Your task to perform on an android device: delete the emails in spam in the gmail app Image 0: 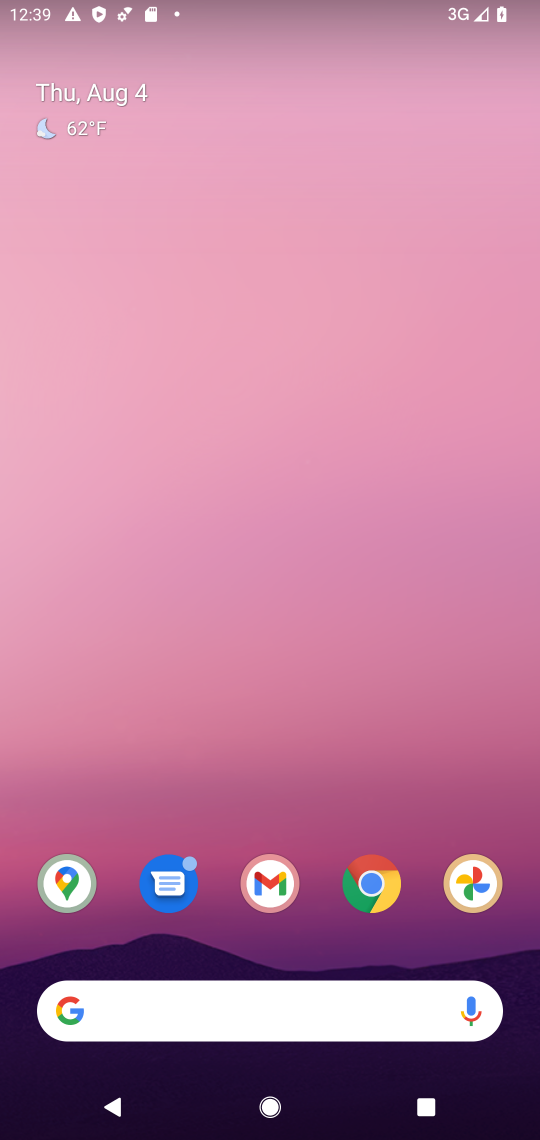
Step 0: drag from (260, 870) to (351, 209)
Your task to perform on an android device: delete the emails in spam in the gmail app Image 1: 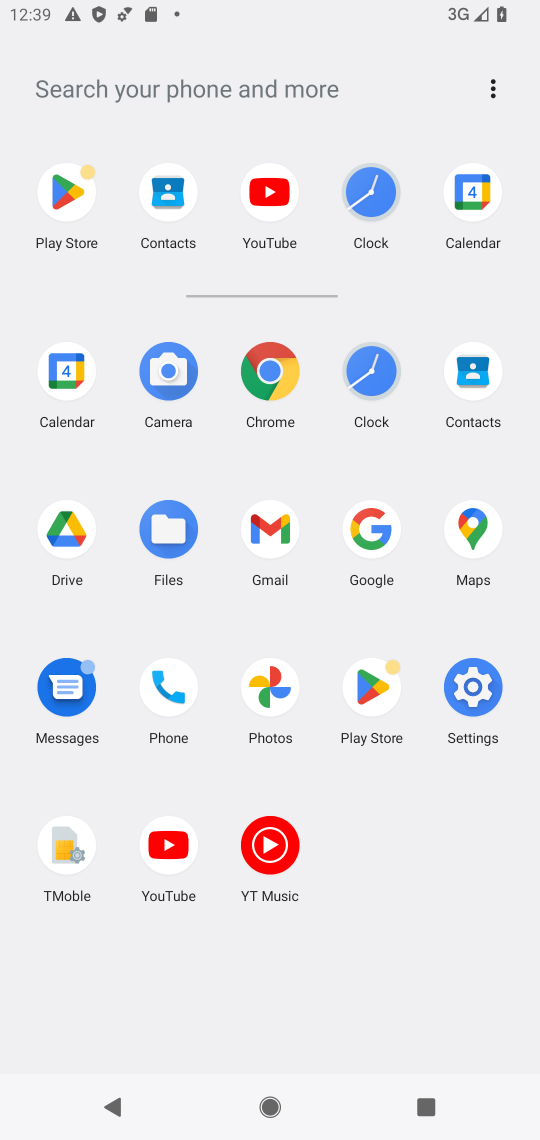
Step 1: click (276, 542)
Your task to perform on an android device: delete the emails in spam in the gmail app Image 2: 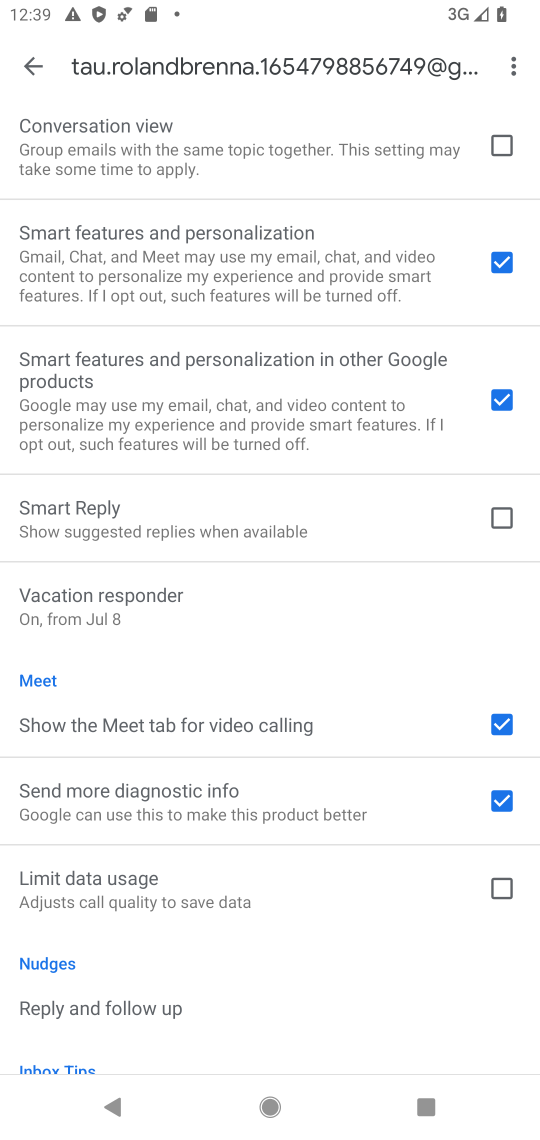
Step 2: drag from (297, 517) to (518, 420)
Your task to perform on an android device: delete the emails in spam in the gmail app Image 3: 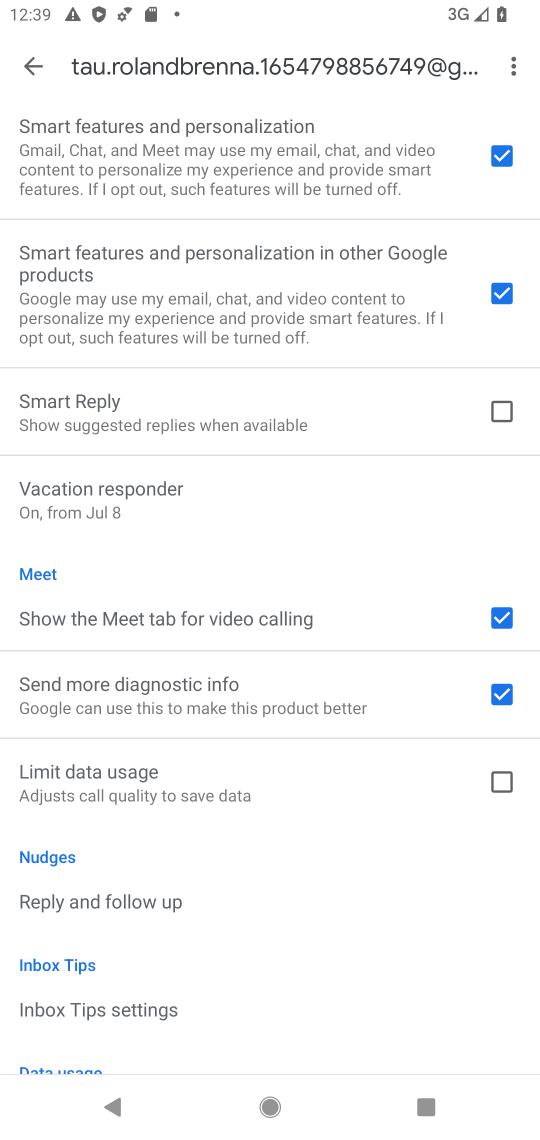
Step 3: click (25, 65)
Your task to perform on an android device: delete the emails in spam in the gmail app Image 4: 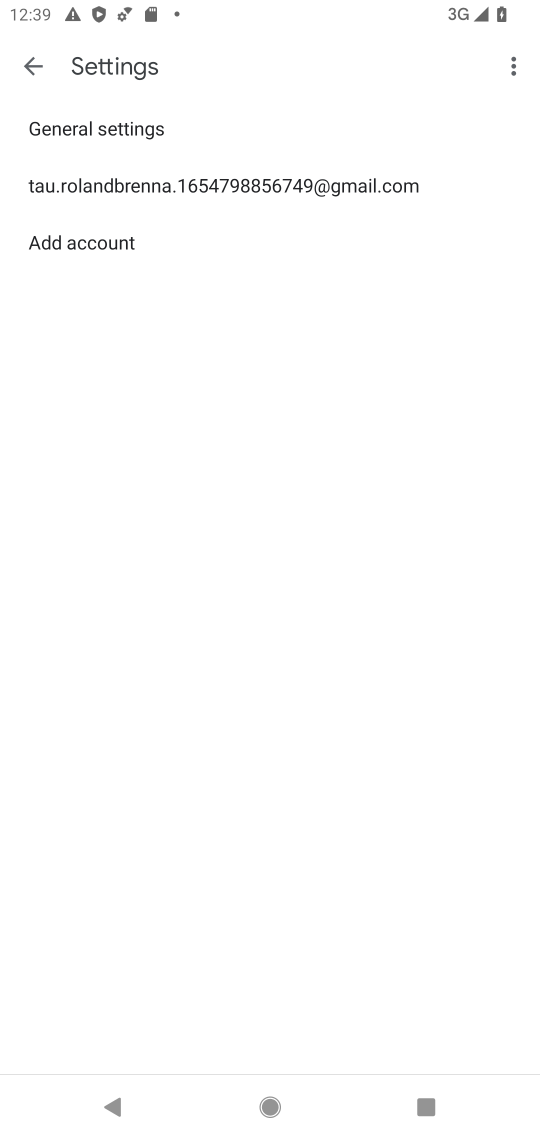
Step 4: click (27, 57)
Your task to perform on an android device: delete the emails in spam in the gmail app Image 5: 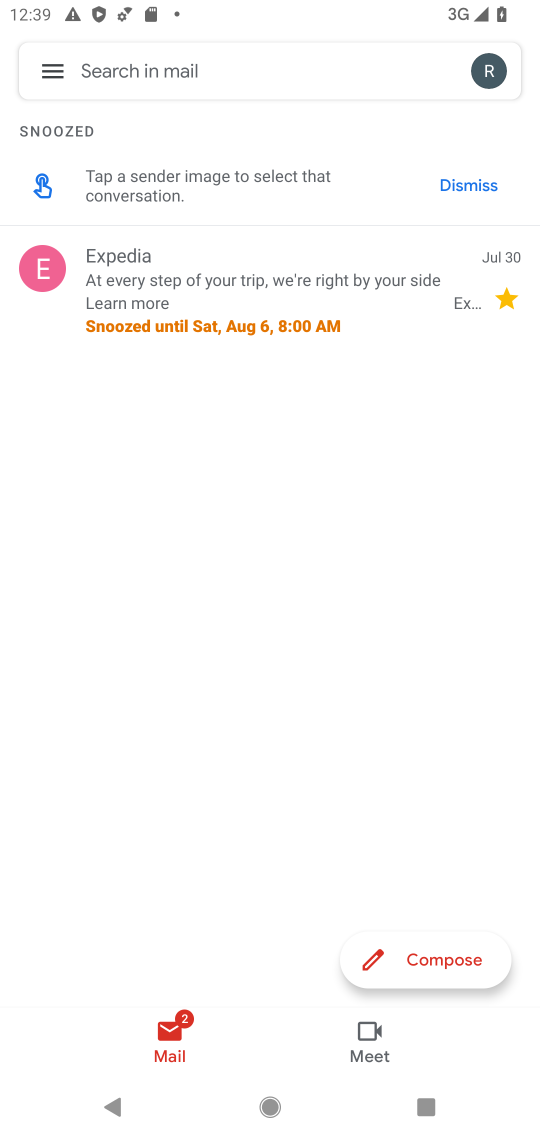
Step 5: click (44, 57)
Your task to perform on an android device: delete the emails in spam in the gmail app Image 6: 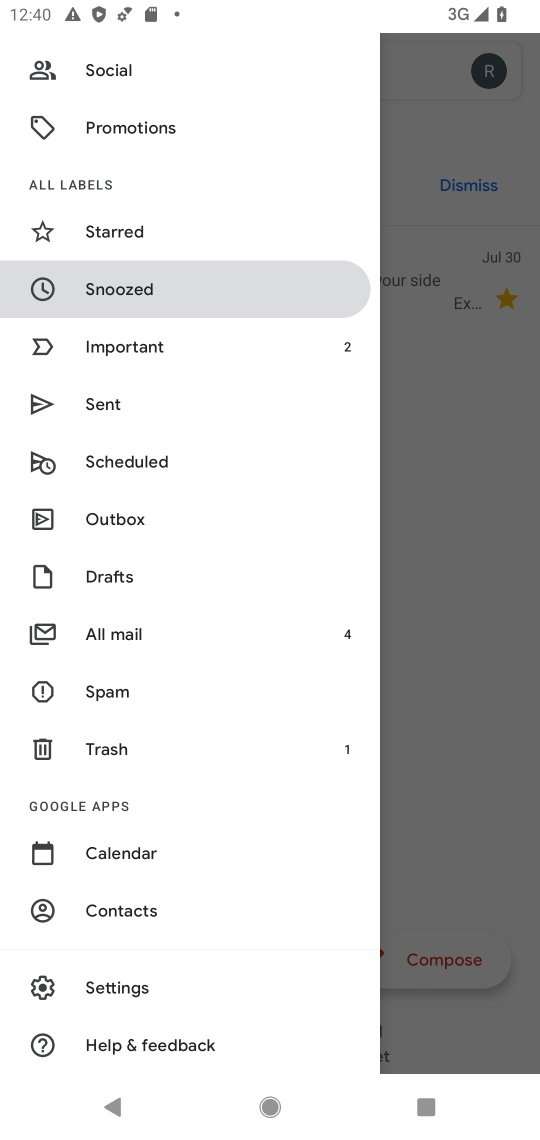
Step 6: drag from (121, 418) to (256, 1128)
Your task to perform on an android device: delete the emails in spam in the gmail app Image 7: 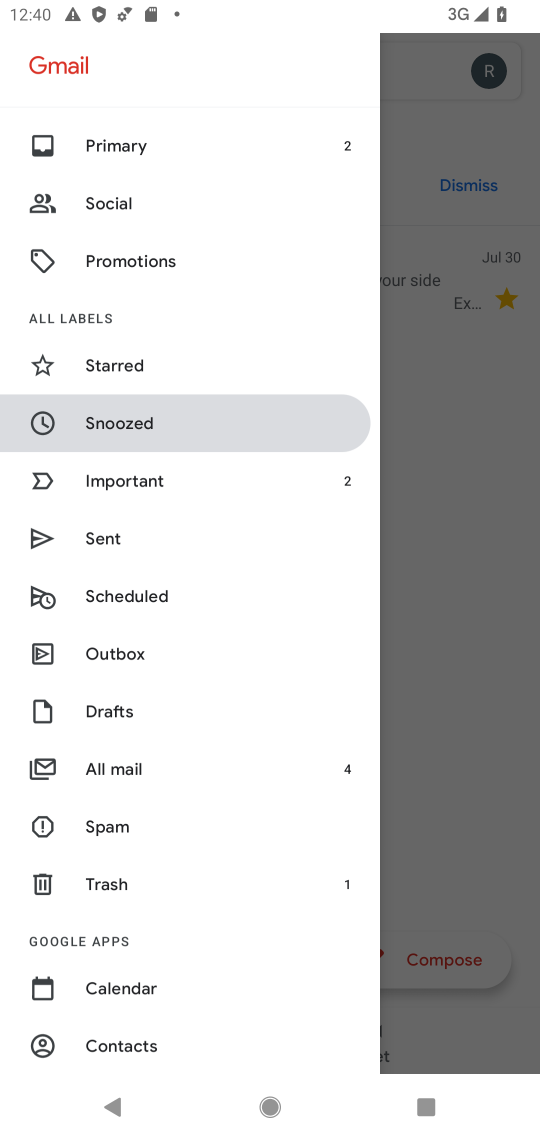
Step 7: click (113, 833)
Your task to perform on an android device: delete the emails in spam in the gmail app Image 8: 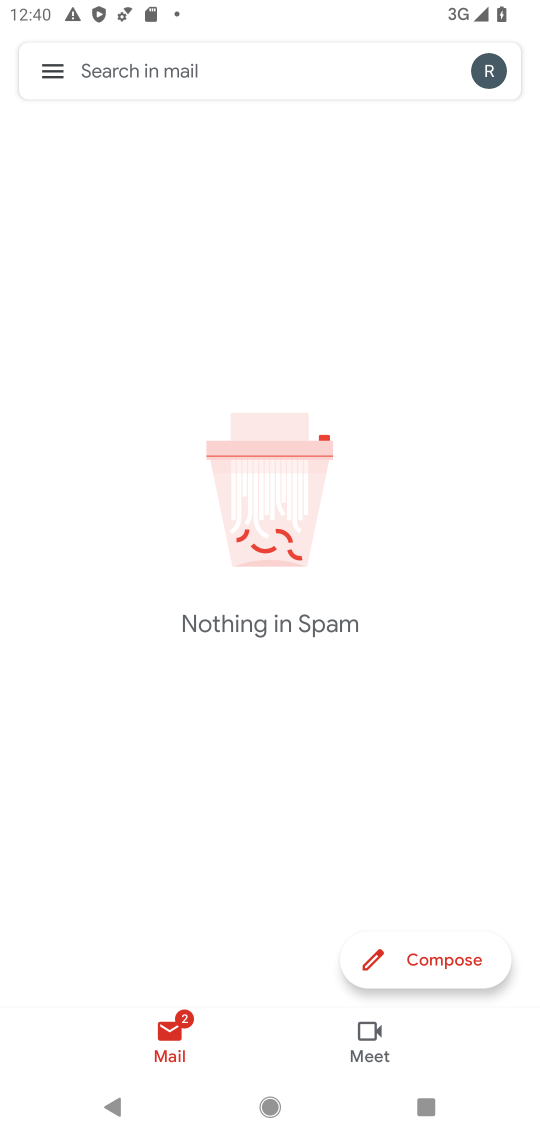
Step 8: drag from (198, 665) to (202, 142)
Your task to perform on an android device: delete the emails in spam in the gmail app Image 9: 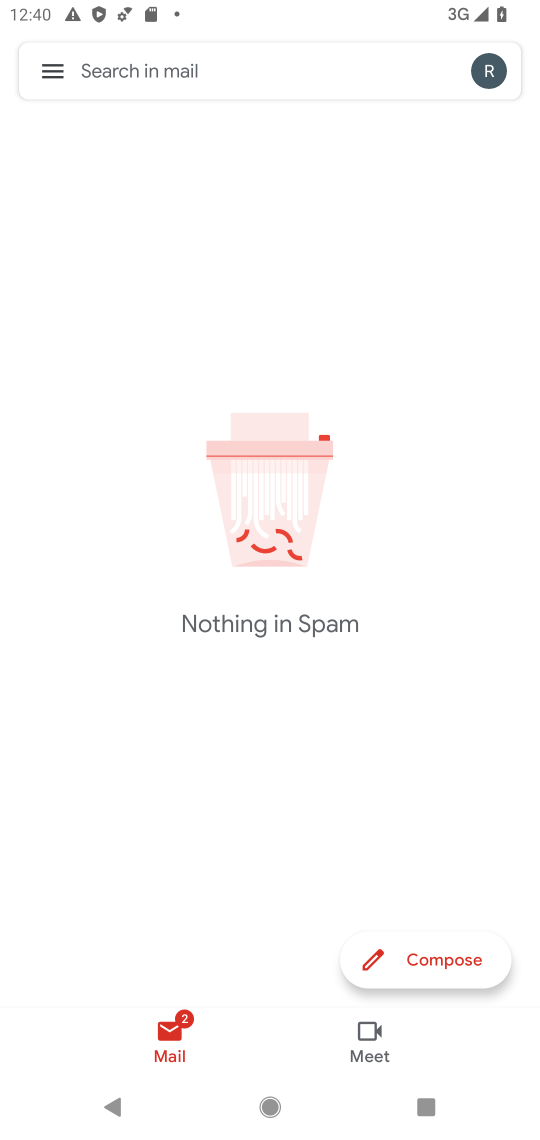
Step 9: click (54, 65)
Your task to perform on an android device: delete the emails in spam in the gmail app Image 10: 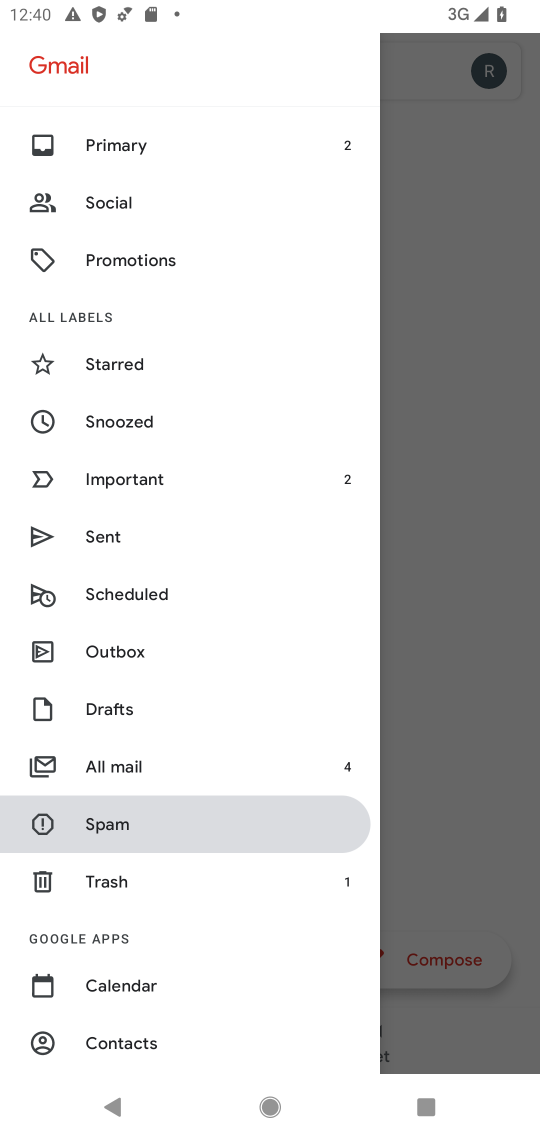
Step 10: drag from (204, 842) to (185, 423)
Your task to perform on an android device: delete the emails in spam in the gmail app Image 11: 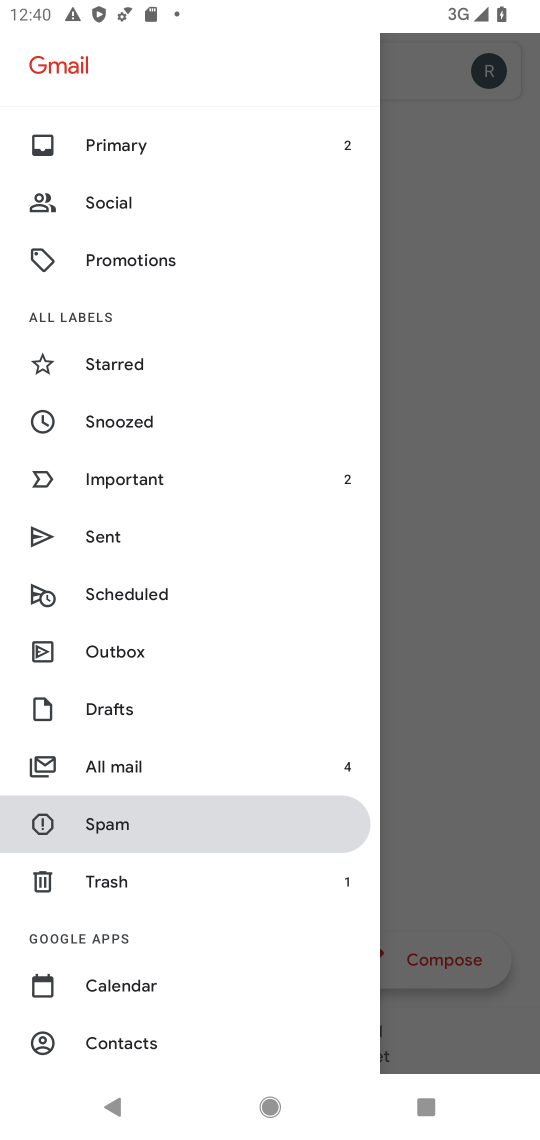
Step 11: click (126, 827)
Your task to perform on an android device: delete the emails in spam in the gmail app Image 12: 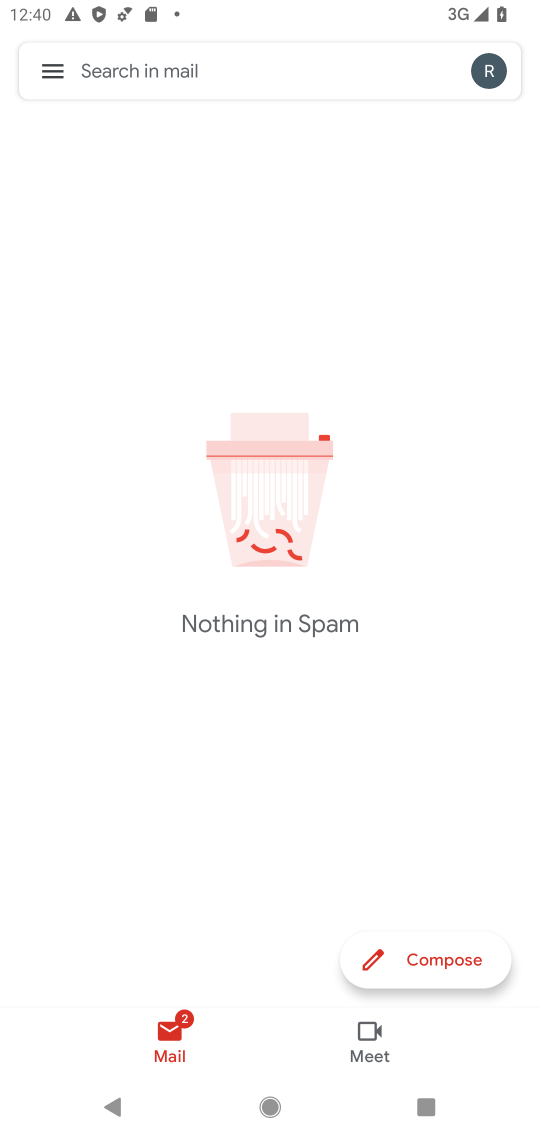
Step 12: task complete